Your task to perform on an android device: Turn on the flashlight Image 0: 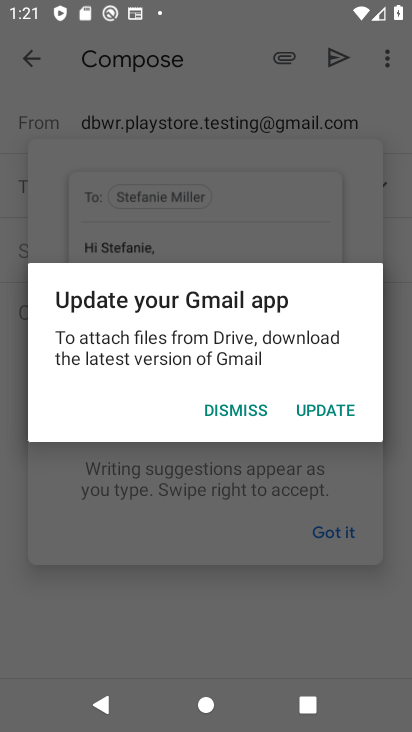
Step 0: press home button
Your task to perform on an android device: Turn on the flashlight Image 1: 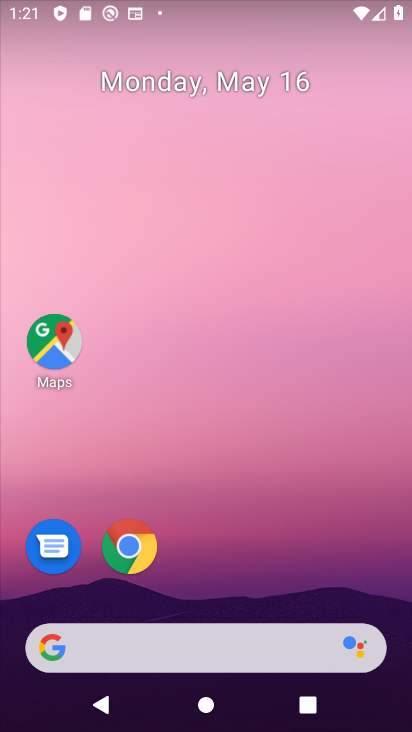
Step 1: drag from (201, 591) to (318, 124)
Your task to perform on an android device: Turn on the flashlight Image 2: 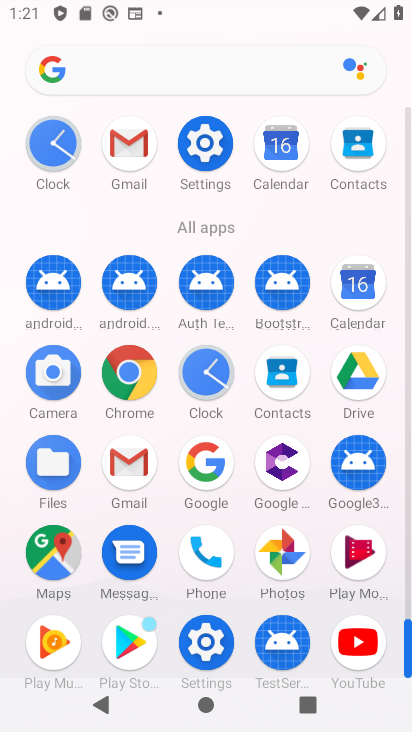
Step 2: click (204, 139)
Your task to perform on an android device: Turn on the flashlight Image 3: 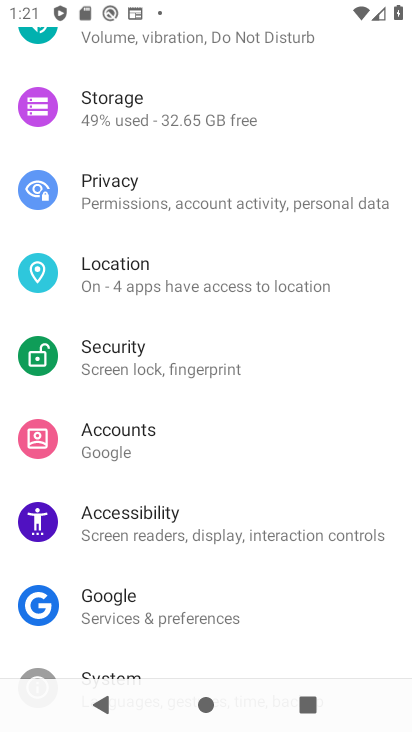
Step 3: drag from (166, 163) to (164, 473)
Your task to perform on an android device: Turn on the flashlight Image 4: 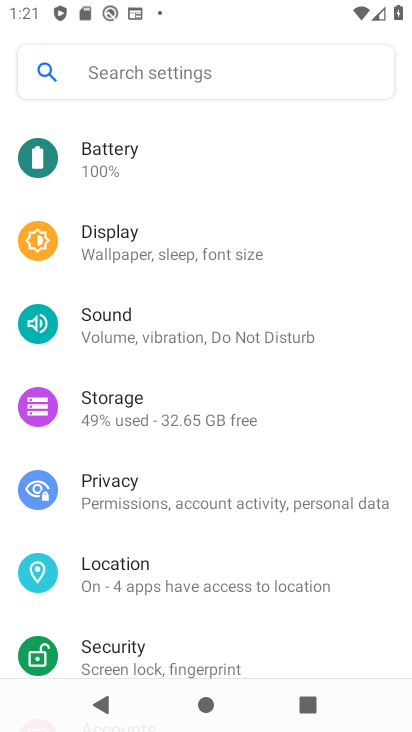
Step 4: click (119, 238)
Your task to perform on an android device: Turn on the flashlight Image 5: 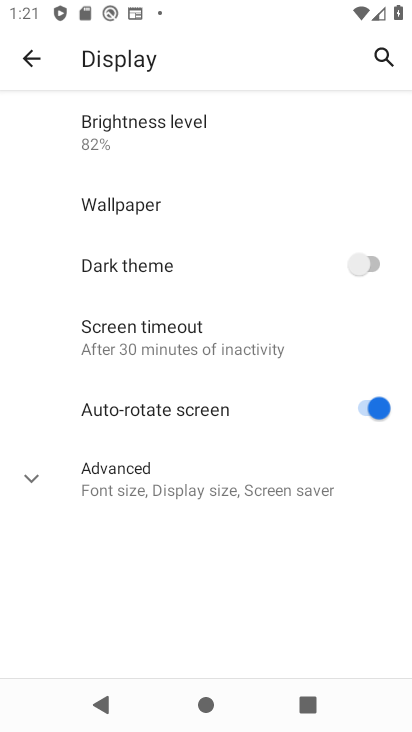
Step 5: task complete